Your task to perform on an android device: open a new tab in the chrome app Image 0: 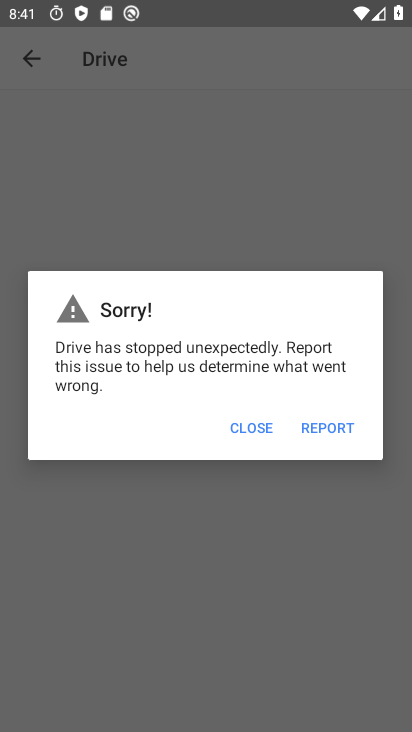
Step 0: press back button
Your task to perform on an android device: open a new tab in the chrome app Image 1: 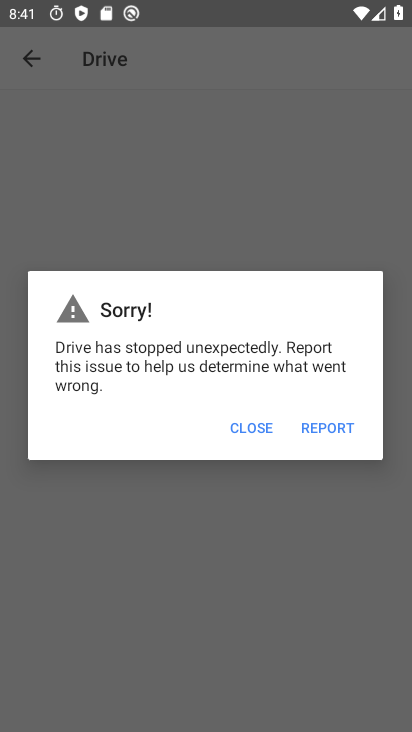
Step 1: press back button
Your task to perform on an android device: open a new tab in the chrome app Image 2: 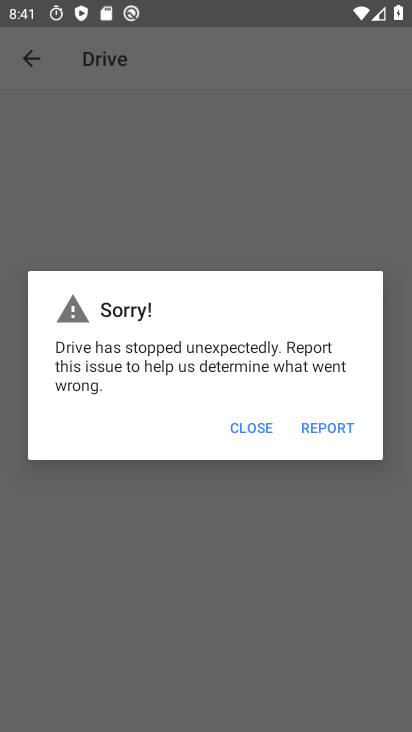
Step 2: press home button
Your task to perform on an android device: open a new tab in the chrome app Image 3: 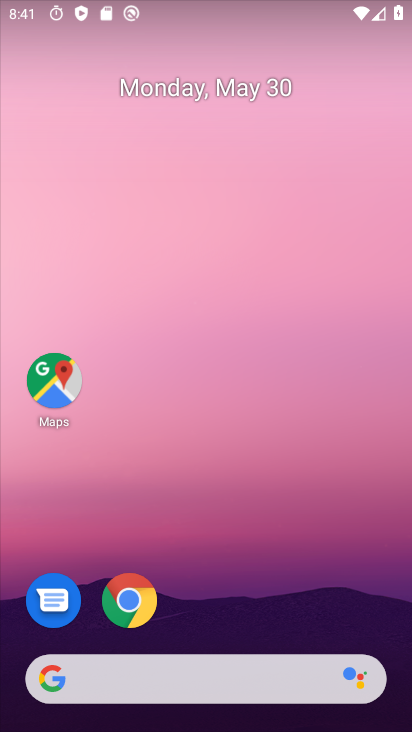
Step 3: drag from (243, 575) to (206, 13)
Your task to perform on an android device: open a new tab in the chrome app Image 4: 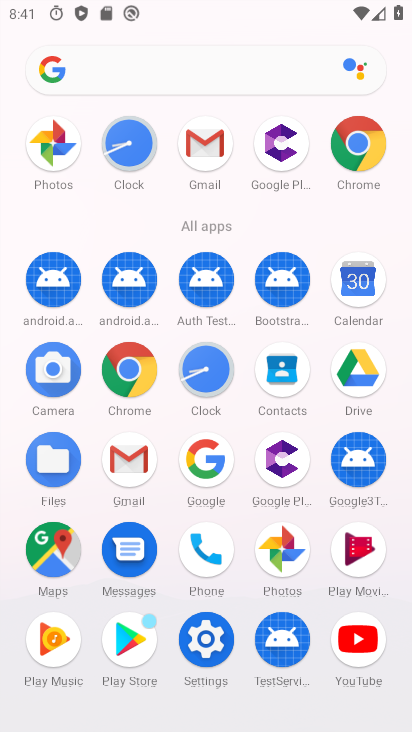
Step 4: drag from (13, 619) to (19, 218)
Your task to perform on an android device: open a new tab in the chrome app Image 5: 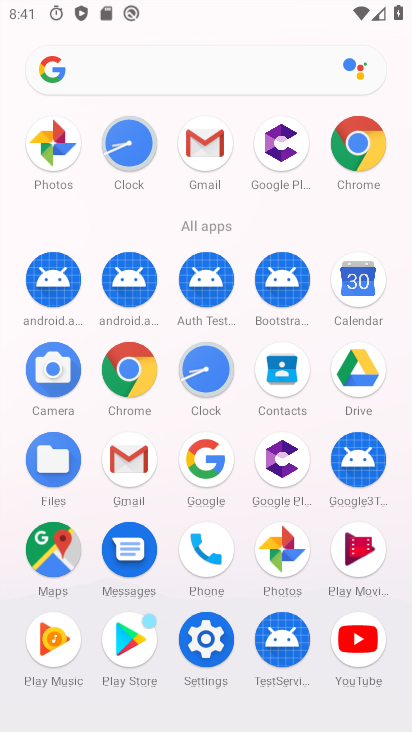
Step 5: click (132, 374)
Your task to perform on an android device: open a new tab in the chrome app Image 6: 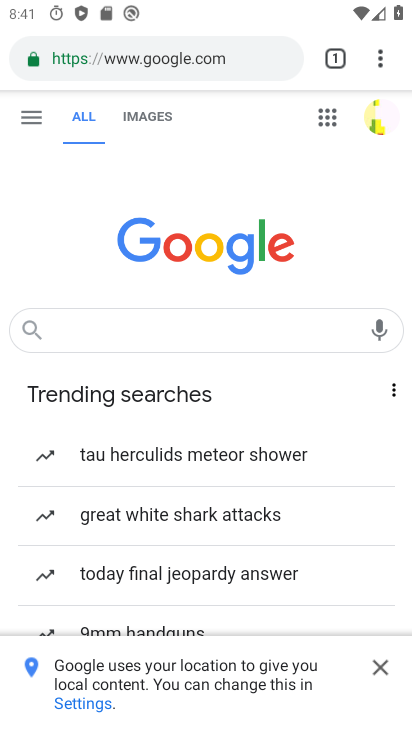
Step 6: task complete